Your task to perform on an android device: create a new album in the google photos Image 0: 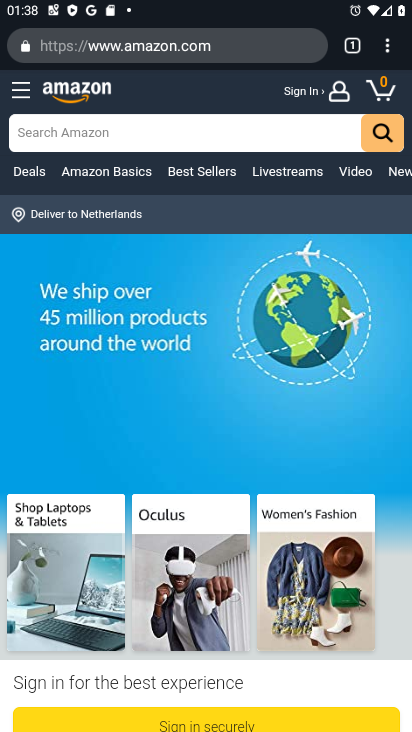
Step 0: click (299, 621)
Your task to perform on an android device: create a new album in the google photos Image 1: 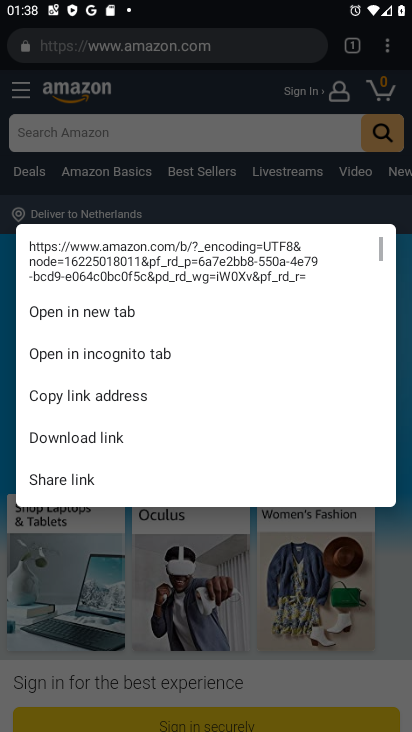
Step 1: press home button
Your task to perform on an android device: create a new album in the google photos Image 2: 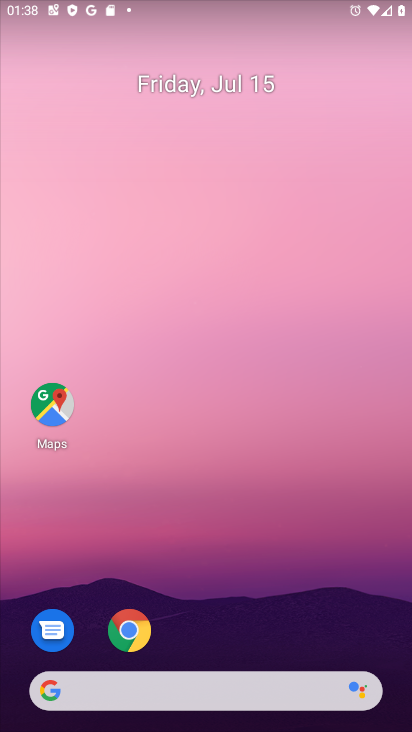
Step 2: drag from (300, 637) to (267, 195)
Your task to perform on an android device: create a new album in the google photos Image 3: 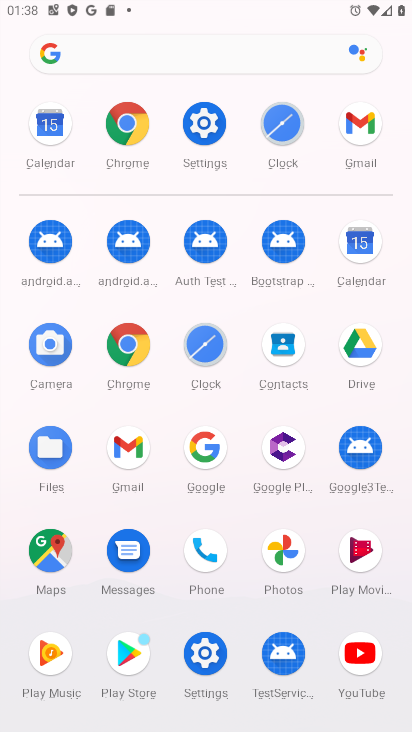
Step 3: click (293, 545)
Your task to perform on an android device: create a new album in the google photos Image 4: 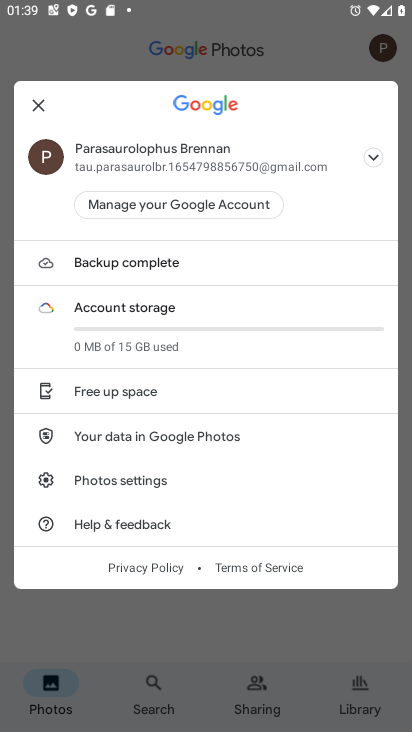
Step 4: click (46, 103)
Your task to perform on an android device: create a new album in the google photos Image 5: 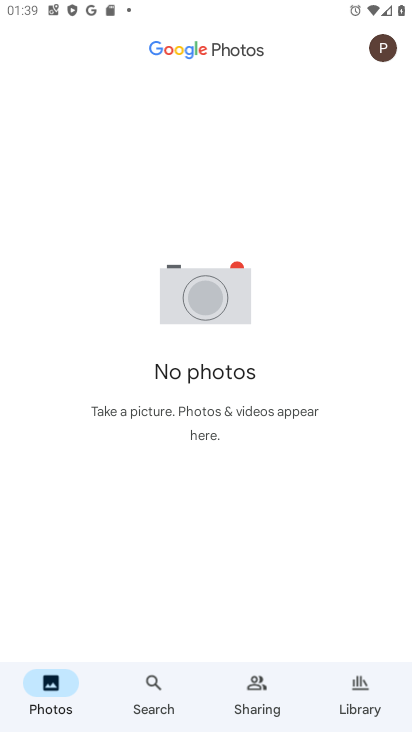
Step 5: task complete